Your task to perform on an android device: toggle pop-ups in chrome Image 0: 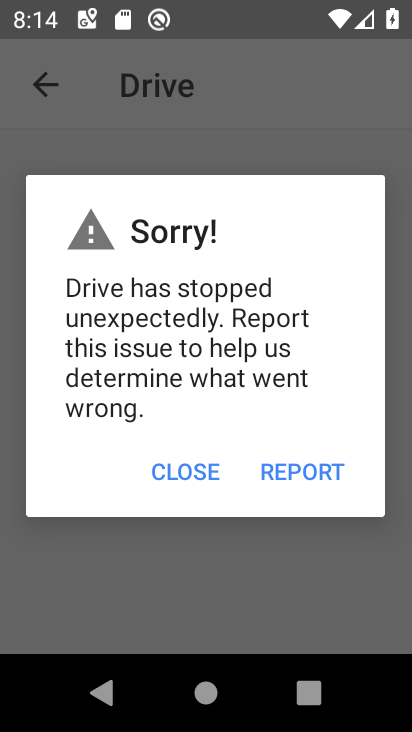
Step 0: press home button
Your task to perform on an android device: toggle pop-ups in chrome Image 1: 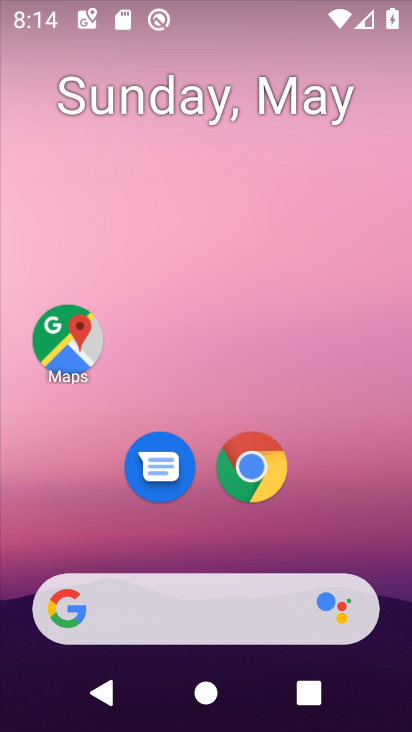
Step 1: drag from (387, 516) to (315, 94)
Your task to perform on an android device: toggle pop-ups in chrome Image 2: 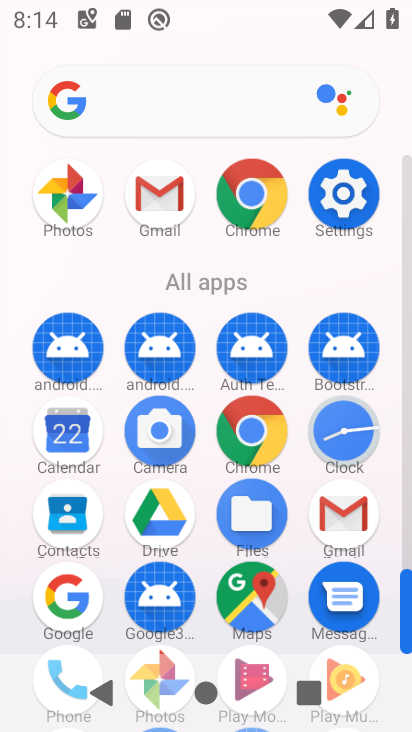
Step 2: click (260, 441)
Your task to perform on an android device: toggle pop-ups in chrome Image 3: 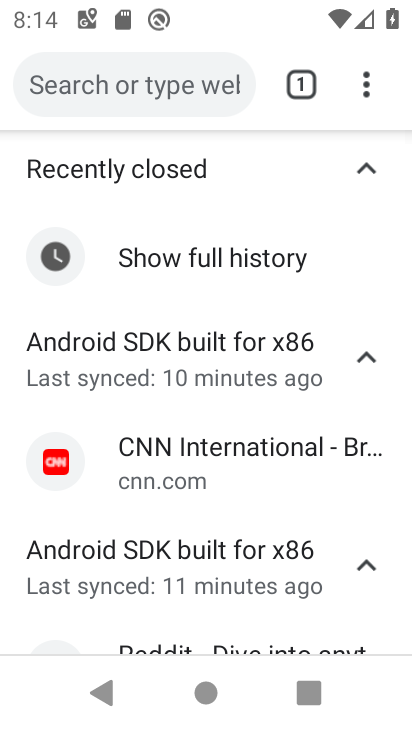
Step 3: drag from (357, 95) to (228, 531)
Your task to perform on an android device: toggle pop-ups in chrome Image 4: 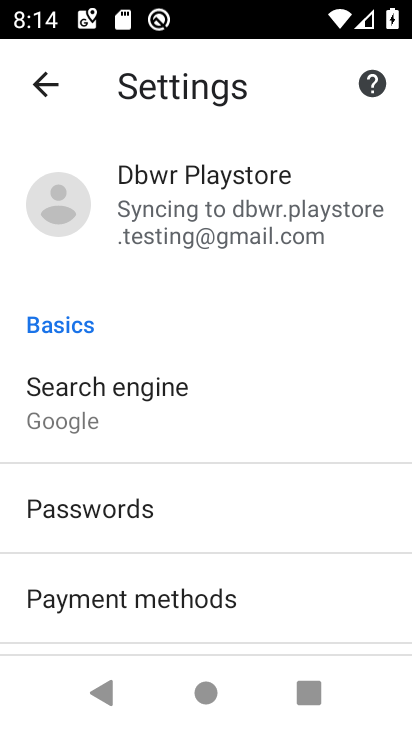
Step 4: drag from (265, 583) to (245, 288)
Your task to perform on an android device: toggle pop-ups in chrome Image 5: 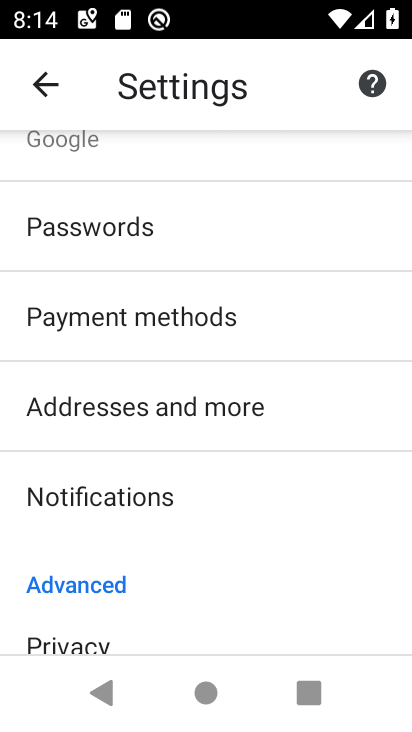
Step 5: drag from (233, 615) to (258, 295)
Your task to perform on an android device: toggle pop-ups in chrome Image 6: 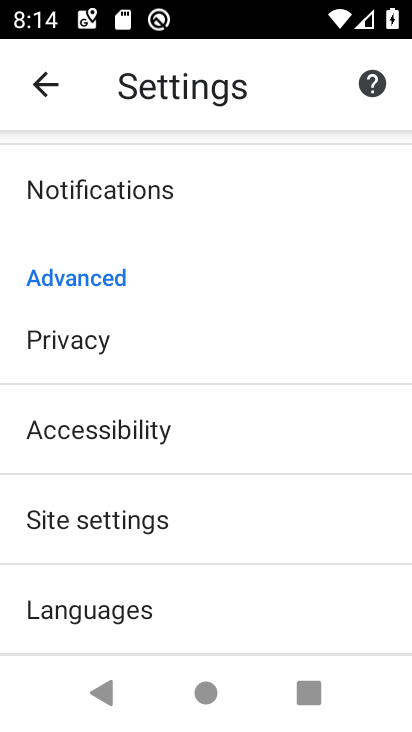
Step 6: click (199, 526)
Your task to perform on an android device: toggle pop-ups in chrome Image 7: 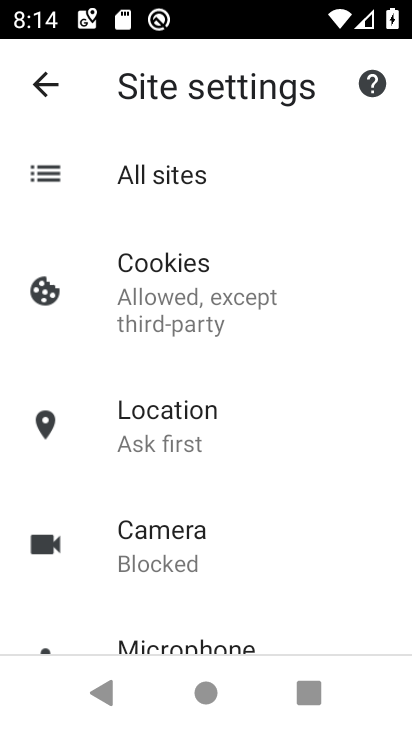
Step 7: drag from (270, 544) to (301, 286)
Your task to perform on an android device: toggle pop-ups in chrome Image 8: 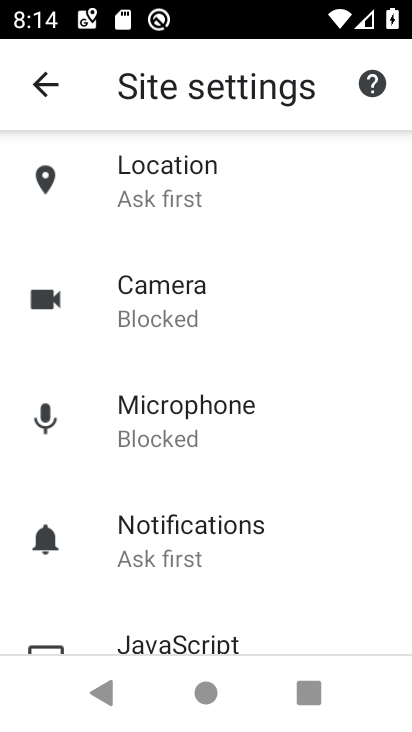
Step 8: drag from (231, 614) to (239, 328)
Your task to perform on an android device: toggle pop-ups in chrome Image 9: 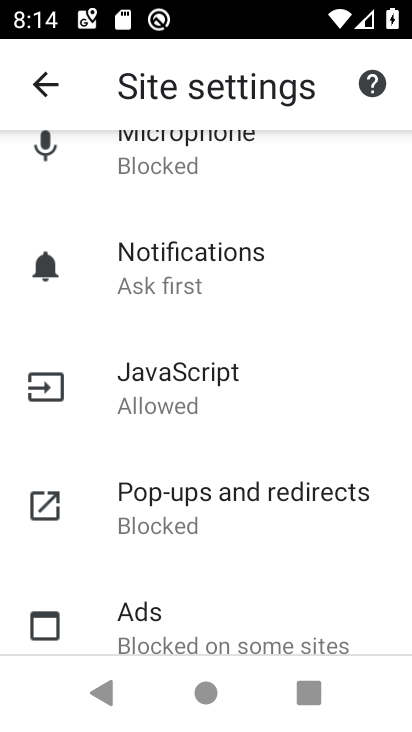
Step 9: click (176, 503)
Your task to perform on an android device: toggle pop-ups in chrome Image 10: 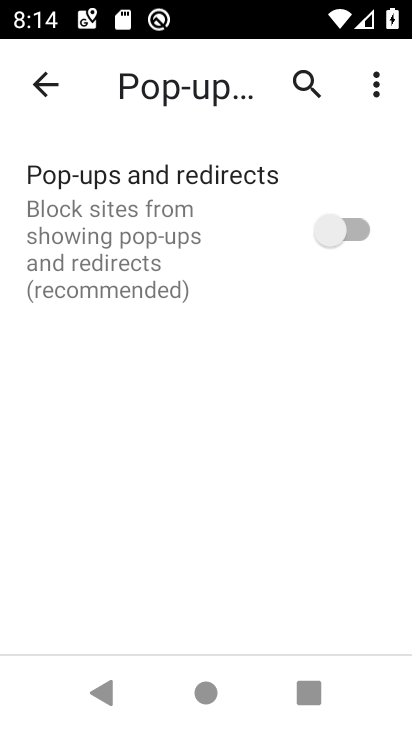
Step 10: click (361, 233)
Your task to perform on an android device: toggle pop-ups in chrome Image 11: 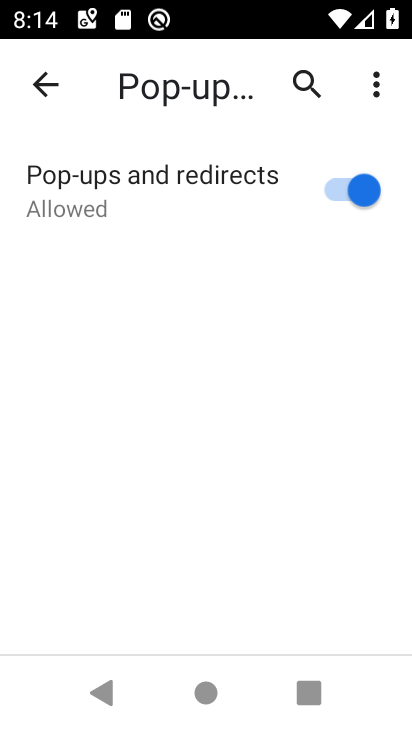
Step 11: task complete